Your task to perform on an android device: Open CNN.com Image 0: 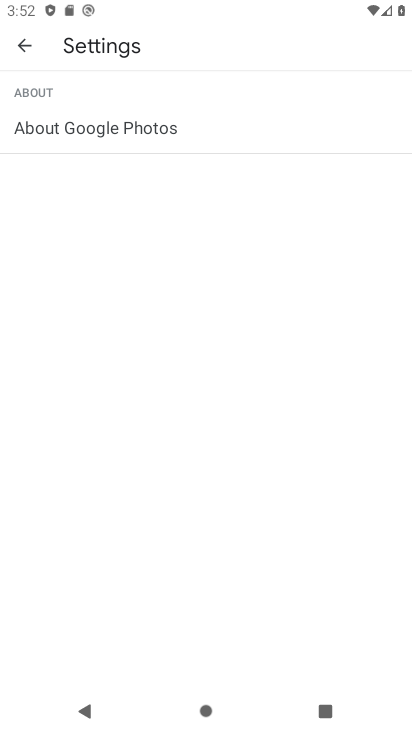
Step 0: press home button
Your task to perform on an android device: Open CNN.com Image 1: 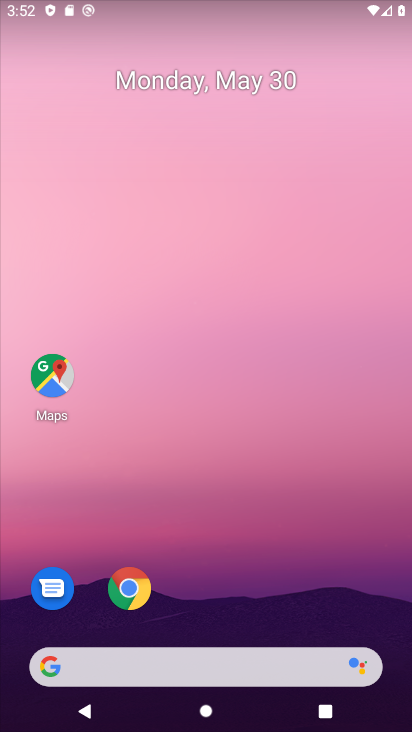
Step 1: drag from (178, 644) to (166, 276)
Your task to perform on an android device: Open CNN.com Image 2: 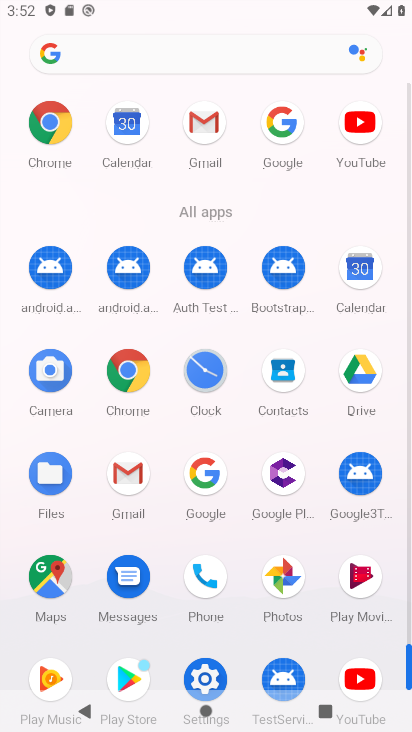
Step 2: click (197, 459)
Your task to perform on an android device: Open CNN.com Image 3: 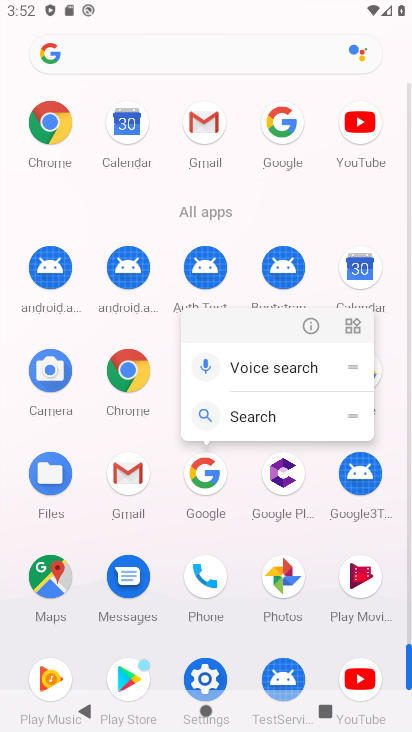
Step 3: click (200, 474)
Your task to perform on an android device: Open CNN.com Image 4: 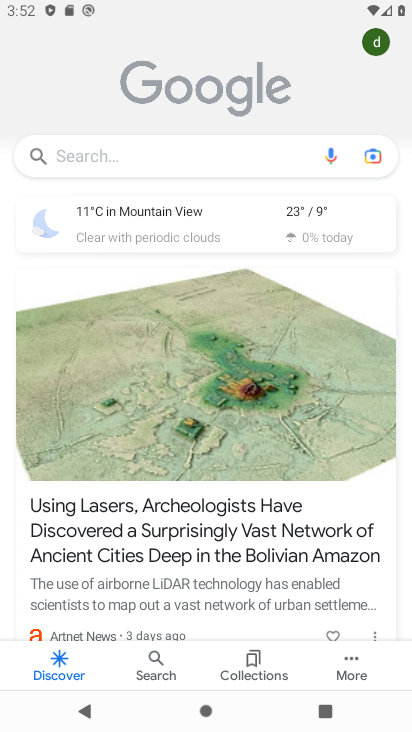
Step 4: click (129, 166)
Your task to perform on an android device: Open CNN.com Image 5: 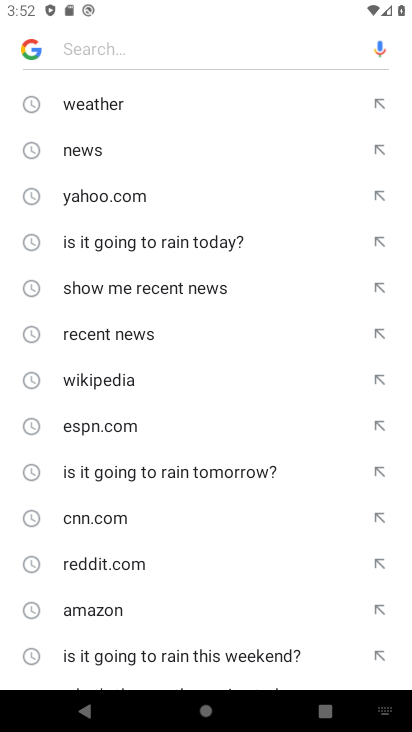
Step 5: click (100, 523)
Your task to perform on an android device: Open CNN.com Image 6: 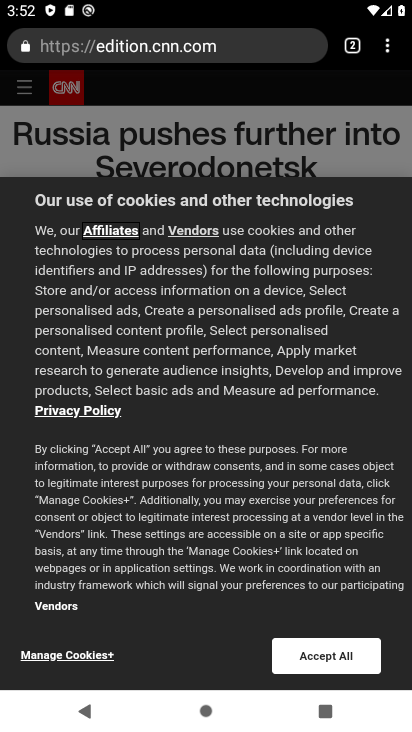
Step 6: task complete